Your task to perform on an android device: What's the weather going to be this weekend? Image 0: 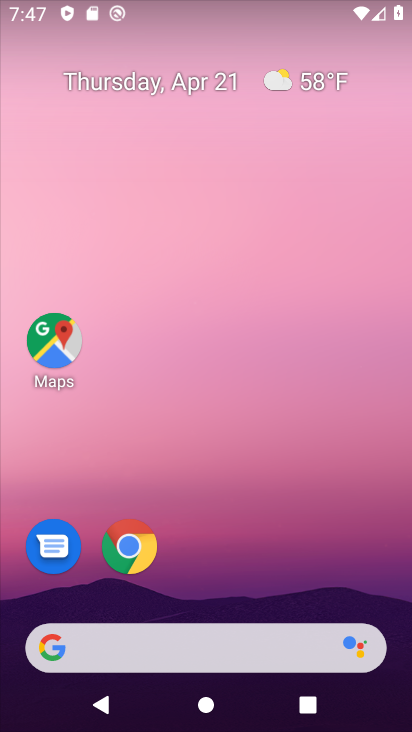
Step 0: drag from (272, 452) to (263, 7)
Your task to perform on an android device: What's the weather going to be this weekend? Image 1: 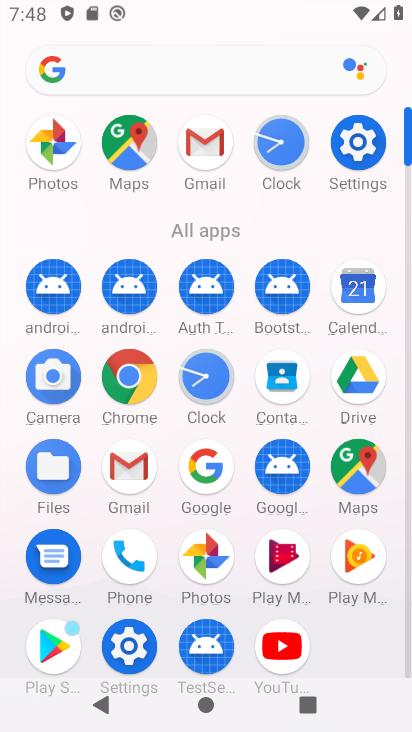
Step 1: click (339, 302)
Your task to perform on an android device: What's the weather going to be this weekend? Image 2: 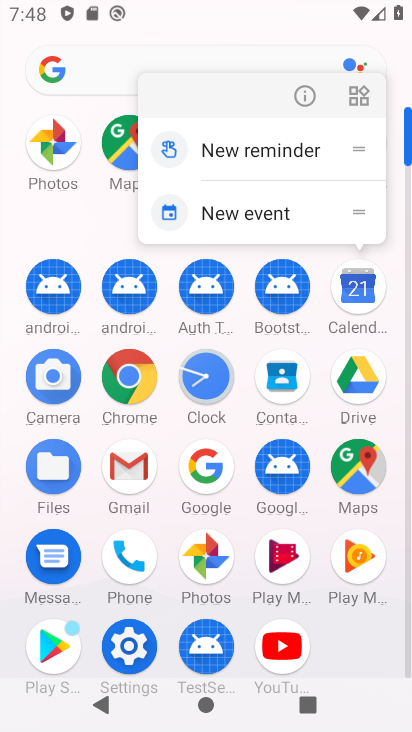
Step 2: click (347, 297)
Your task to perform on an android device: What's the weather going to be this weekend? Image 3: 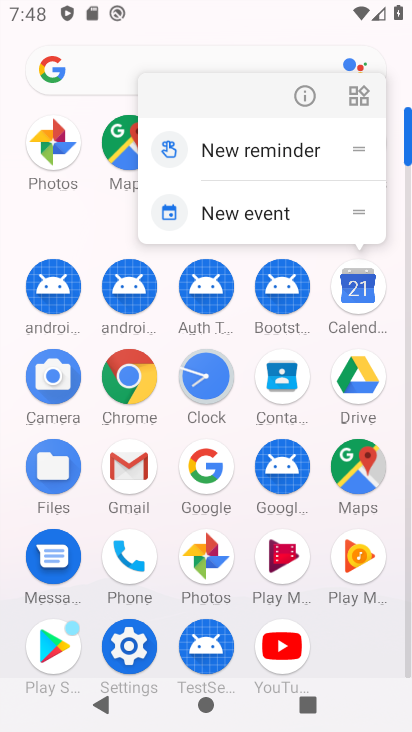
Step 3: click (347, 297)
Your task to perform on an android device: What's the weather going to be this weekend? Image 4: 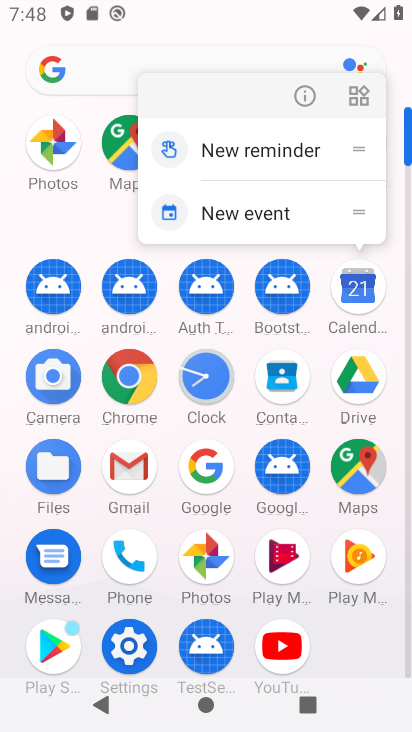
Step 4: click (347, 297)
Your task to perform on an android device: What's the weather going to be this weekend? Image 5: 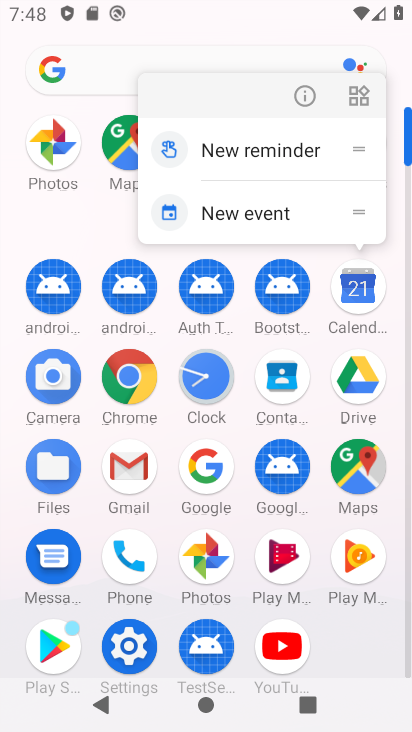
Step 5: click (347, 297)
Your task to perform on an android device: What's the weather going to be this weekend? Image 6: 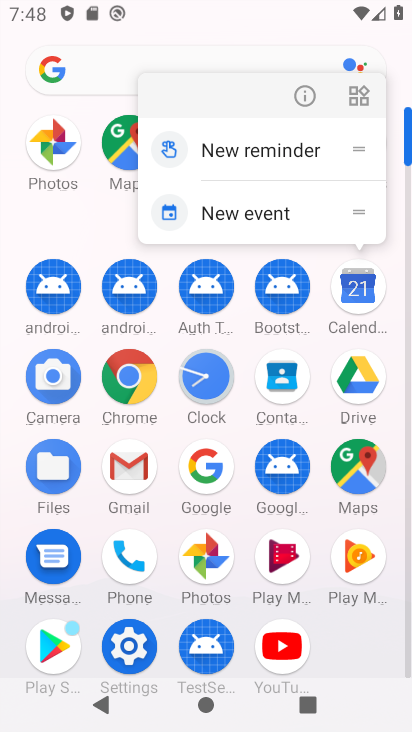
Step 6: click (347, 297)
Your task to perform on an android device: What's the weather going to be this weekend? Image 7: 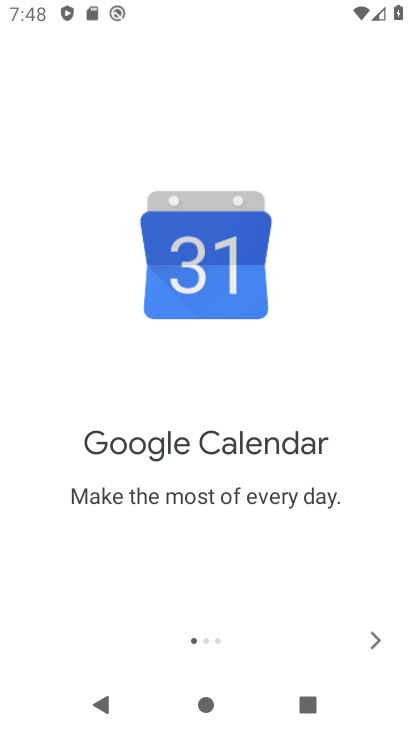
Step 7: click (385, 646)
Your task to perform on an android device: What's the weather going to be this weekend? Image 8: 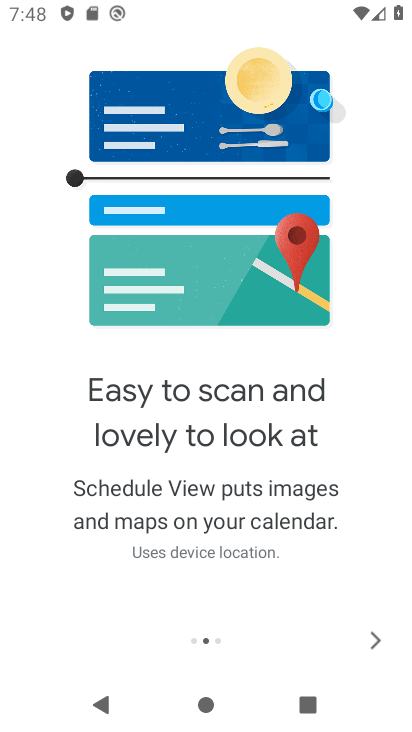
Step 8: click (385, 646)
Your task to perform on an android device: What's the weather going to be this weekend? Image 9: 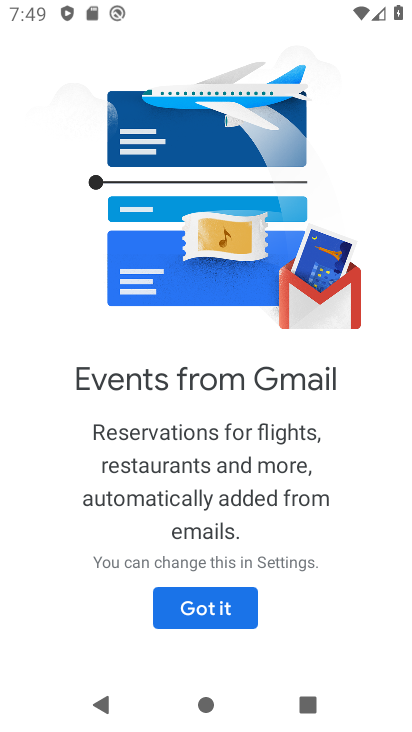
Step 9: click (211, 605)
Your task to perform on an android device: What's the weather going to be this weekend? Image 10: 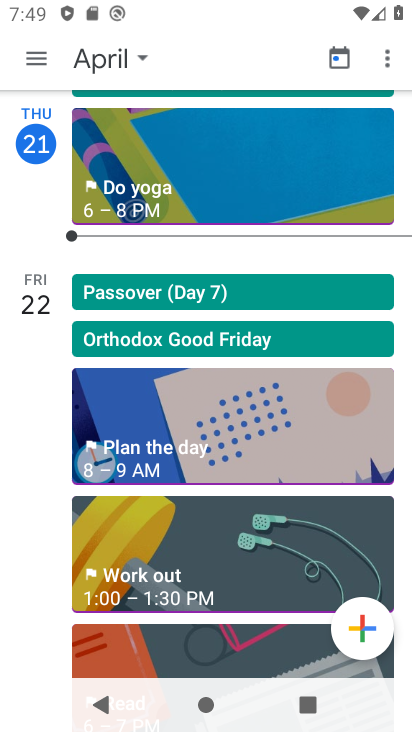
Step 10: click (144, 68)
Your task to perform on an android device: What's the weather going to be this weekend? Image 11: 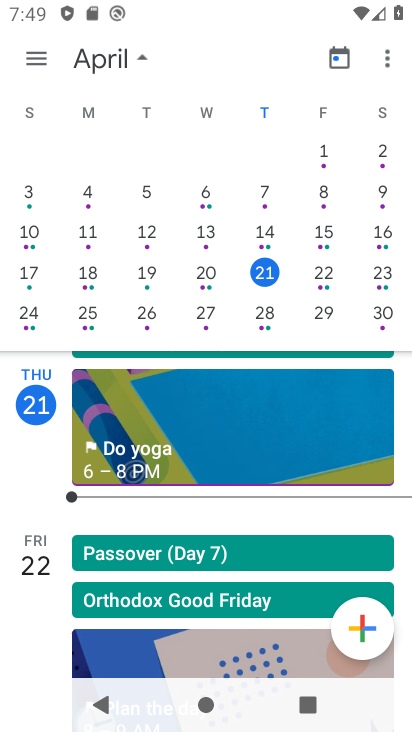
Step 11: click (331, 278)
Your task to perform on an android device: What's the weather going to be this weekend? Image 12: 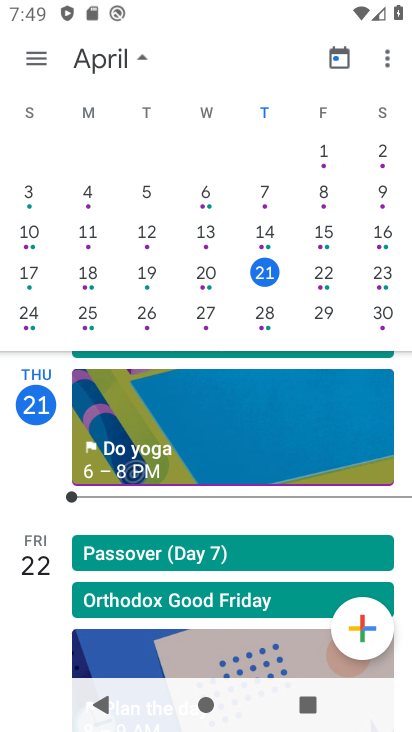
Step 12: click (315, 269)
Your task to perform on an android device: What's the weather going to be this weekend? Image 13: 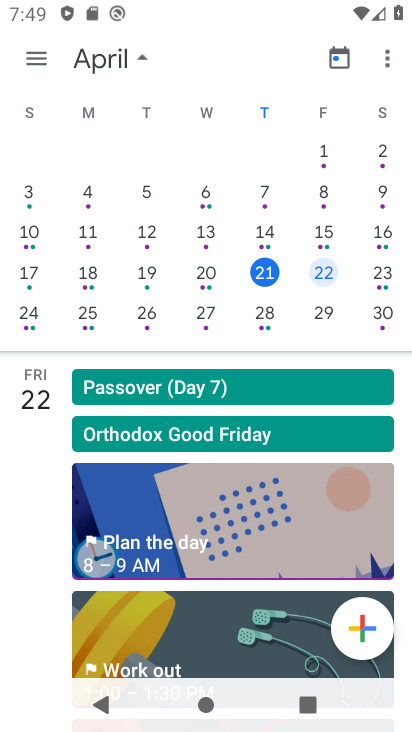
Step 13: task complete